Your task to perform on an android device: toggle pop-ups in chrome Image 0: 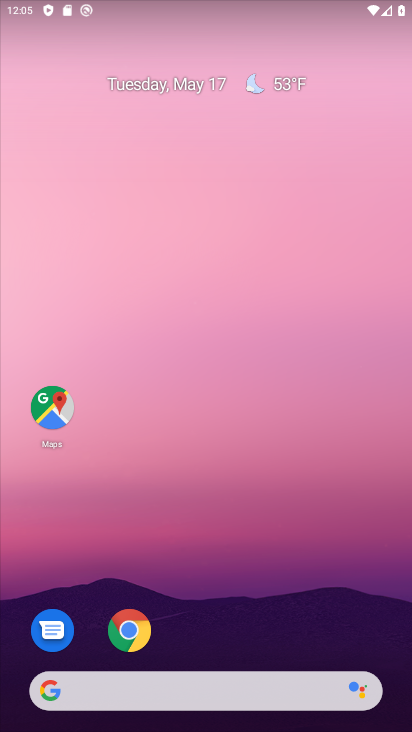
Step 0: drag from (220, 610) to (198, 234)
Your task to perform on an android device: toggle pop-ups in chrome Image 1: 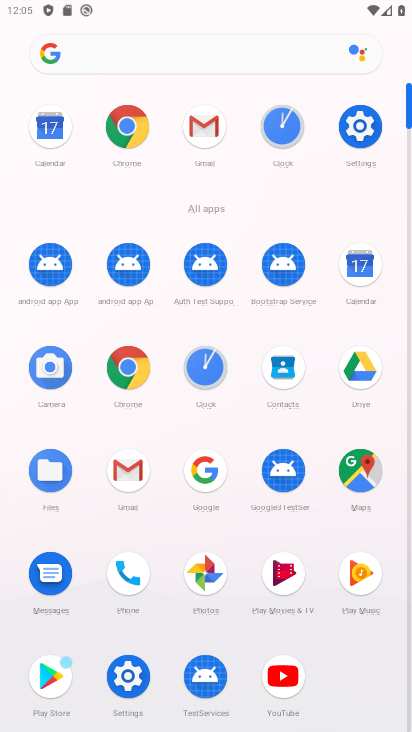
Step 1: click (131, 156)
Your task to perform on an android device: toggle pop-ups in chrome Image 2: 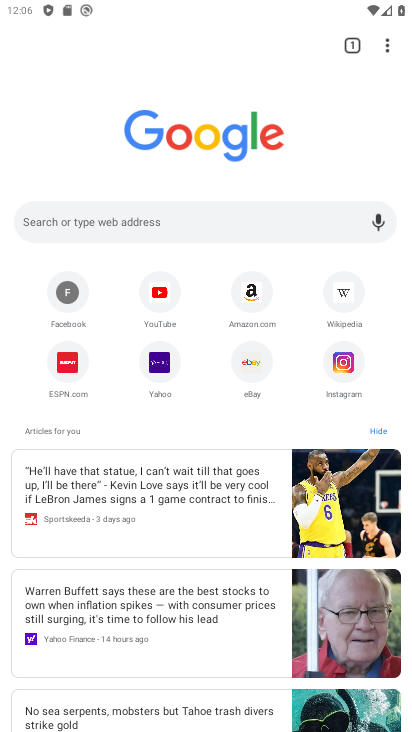
Step 2: click (387, 46)
Your task to perform on an android device: toggle pop-ups in chrome Image 3: 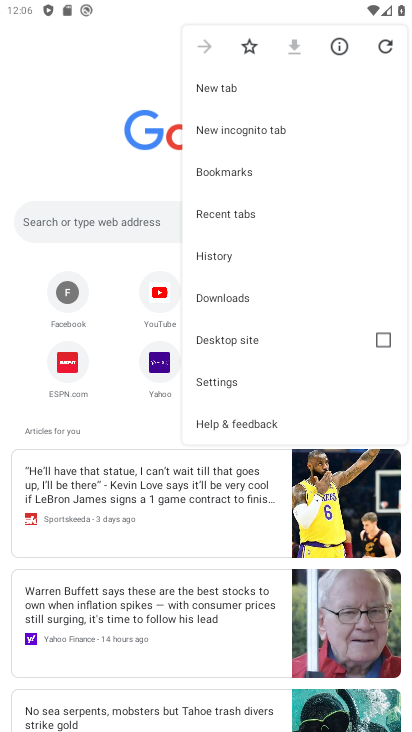
Step 3: click (224, 381)
Your task to perform on an android device: toggle pop-ups in chrome Image 4: 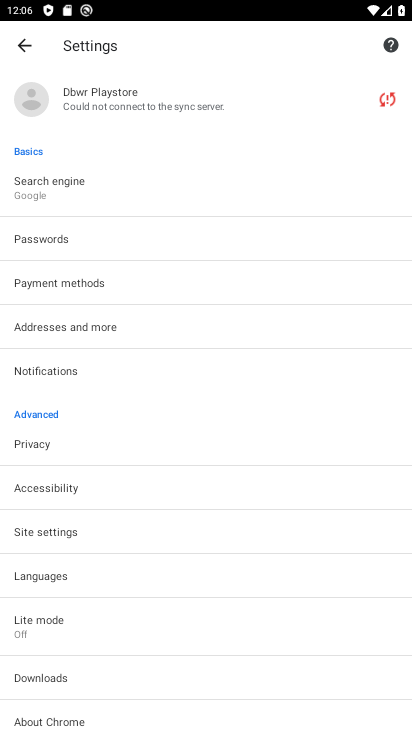
Step 4: drag from (135, 645) to (227, 405)
Your task to perform on an android device: toggle pop-ups in chrome Image 5: 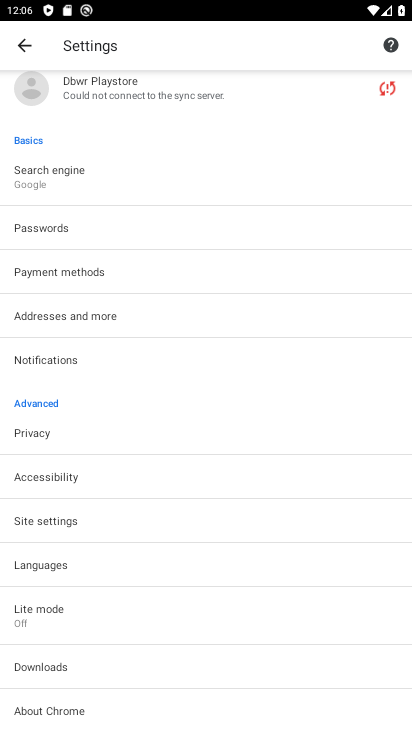
Step 5: click (98, 520)
Your task to perform on an android device: toggle pop-ups in chrome Image 6: 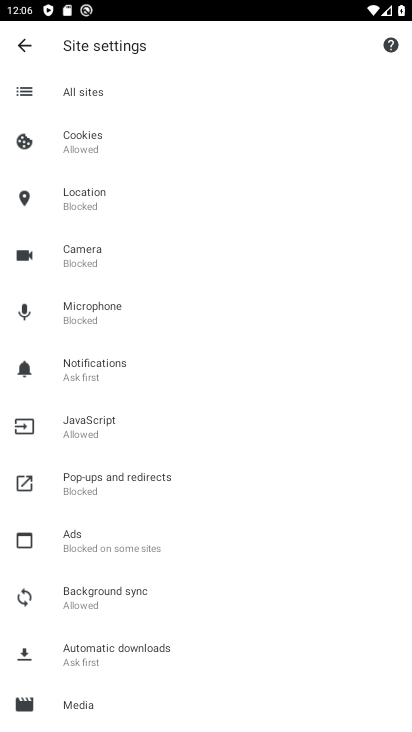
Step 6: click (110, 488)
Your task to perform on an android device: toggle pop-ups in chrome Image 7: 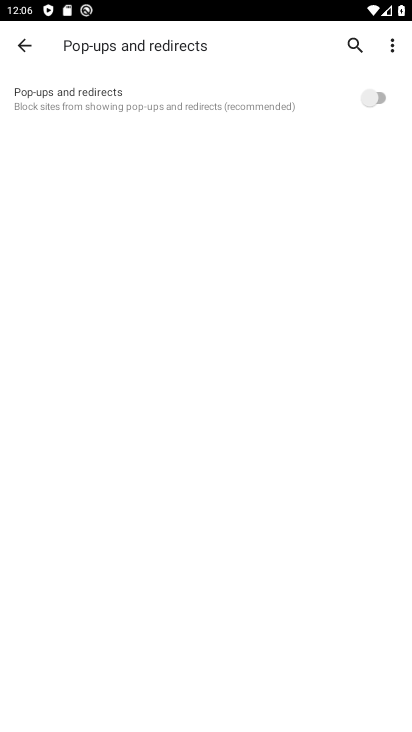
Step 7: click (346, 98)
Your task to perform on an android device: toggle pop-ups in chrome Image 8: 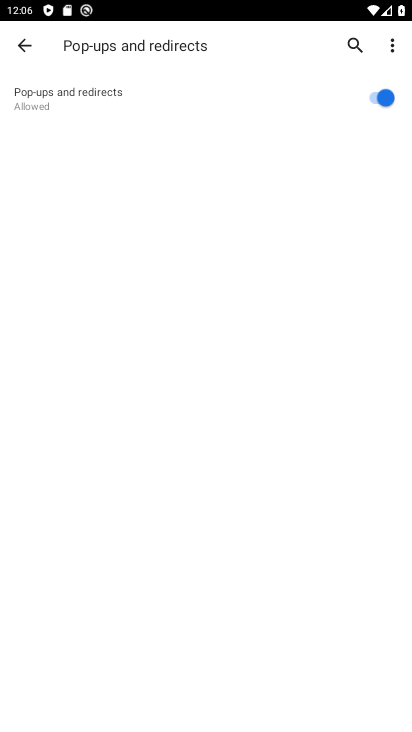
Step 8: task complete